Your task to perform on an android device: Toggle the flashlight Image 0: 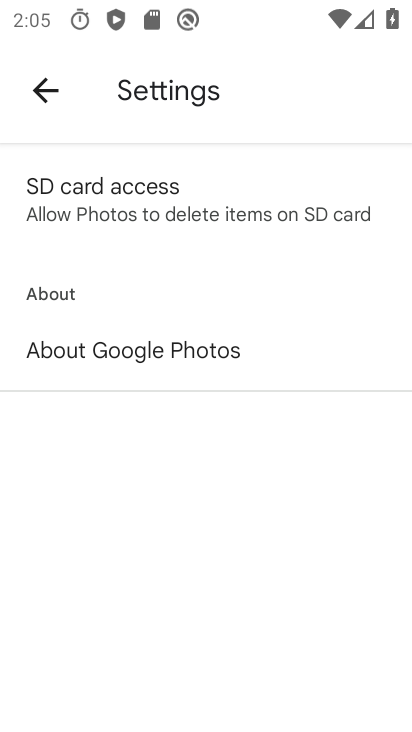
Step 0: press home button
Your task to perform on an android device: Toggle the flashlight Image 1: 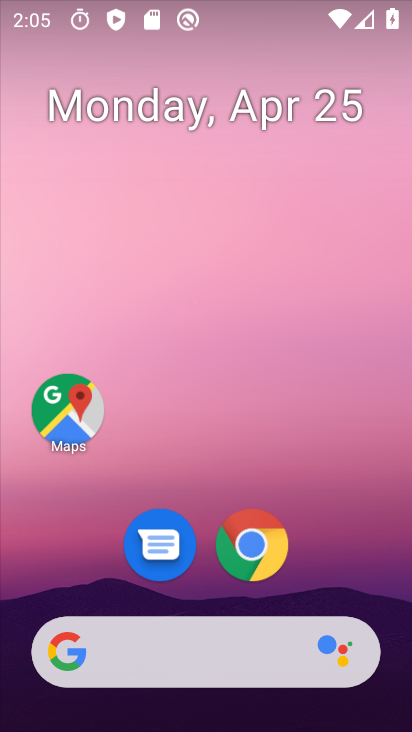
Step 1: drag from (314, 565) to (261, 117)
Your task to perform on an android device: Toggle the flashlight Image 2: 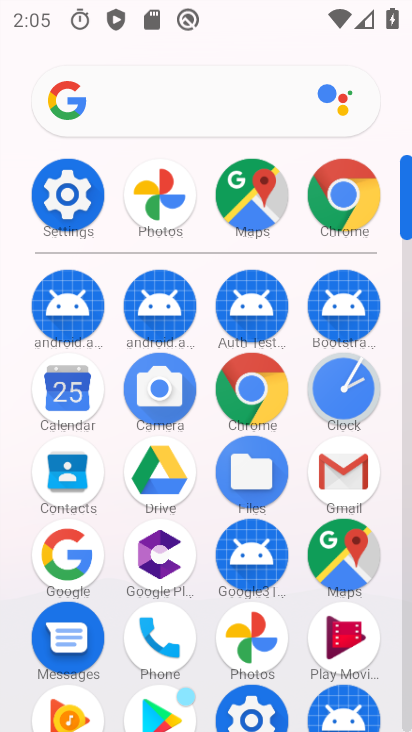
Step 2: click (78, 188)
Your task to perform on an android device: Toggle the flashlight Image 3: 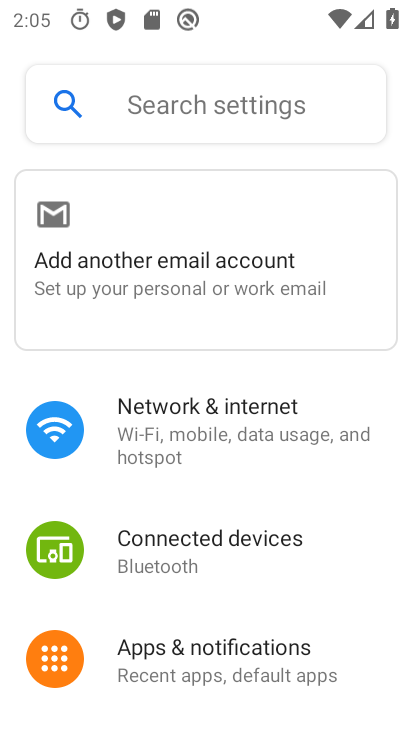
Step 3: drag from (224, 588) to (221, 336)
Your task to perform on an android device: Toggle the flashlight Image 4: 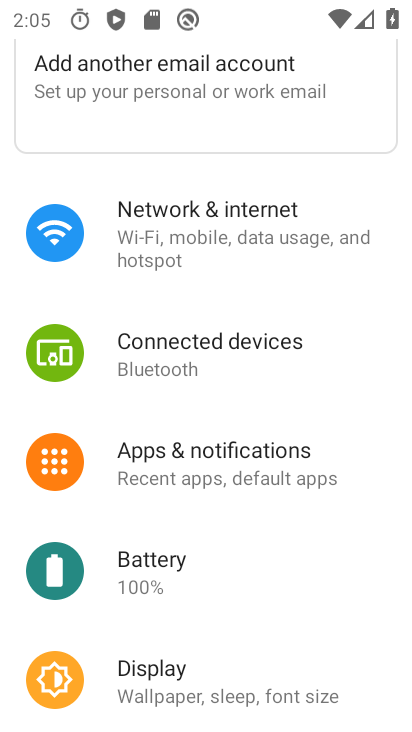
Step 4: click (237, 461)
Your task to perform on an android device: Toggle the flashlight Image 5: 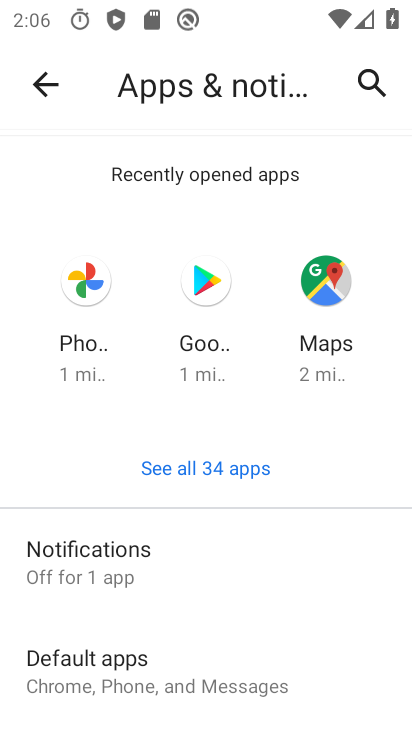
Step 5: drag from (267, 606) to (265, 309)
Your task to perform on an android device: Toggle the flashlight Image 6: 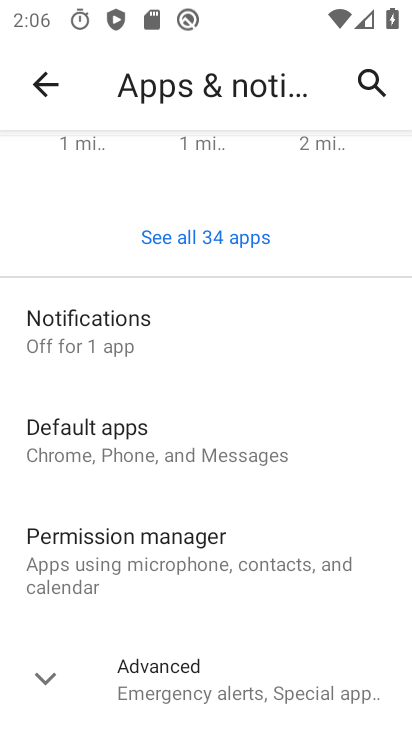
Step 6: click (208, 244)
Your task to perform on an android device: Toggle the flashlight Image 7: 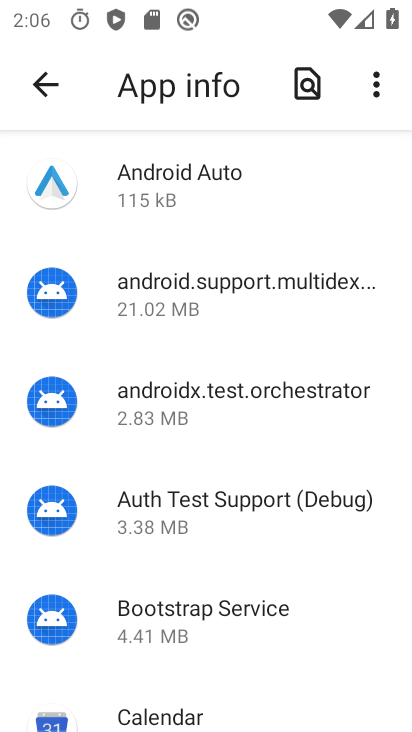
Step 7: click (311, 264)
Your task to perform on an android device: Toggle the flashlight Image 8: 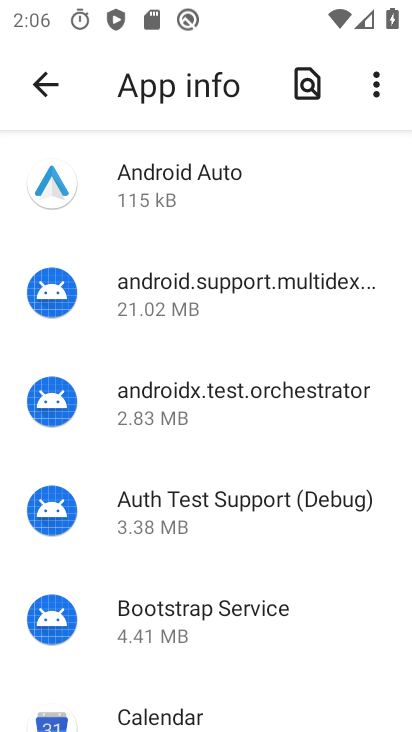
Step 8: task complete